Your task to perform on an android device: allow notifications from all sites in the chrome app Image 0: 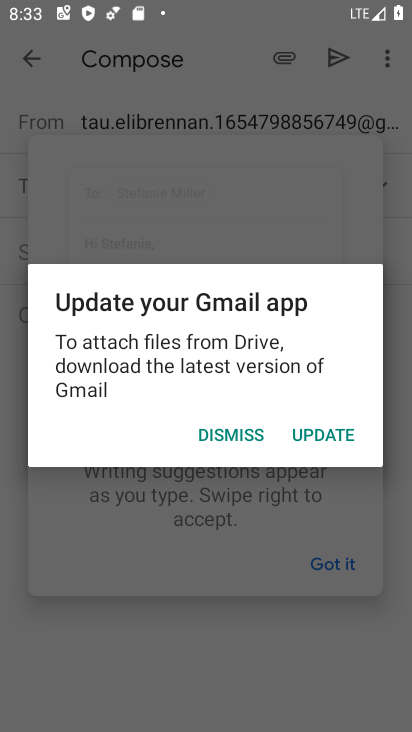
Step 0: press home button
Your task to perform on an android device: allow notifications from all sites in the chrome app Image 1: 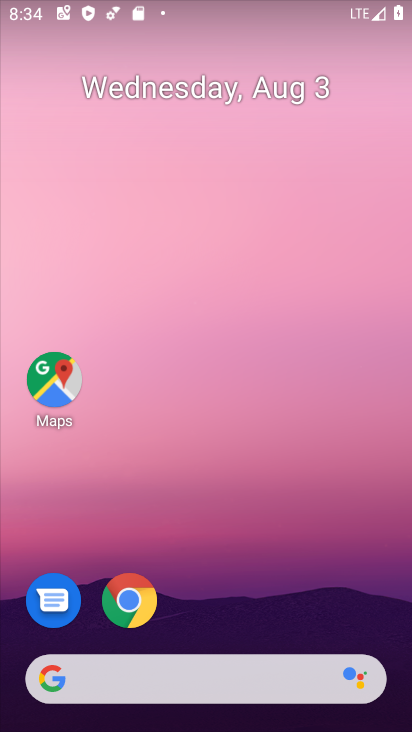
Step 1: drag from (212, 622) to (178, 30)
Your task to perform on an android device: allow notifications from all sites in the chrome app Image 2: 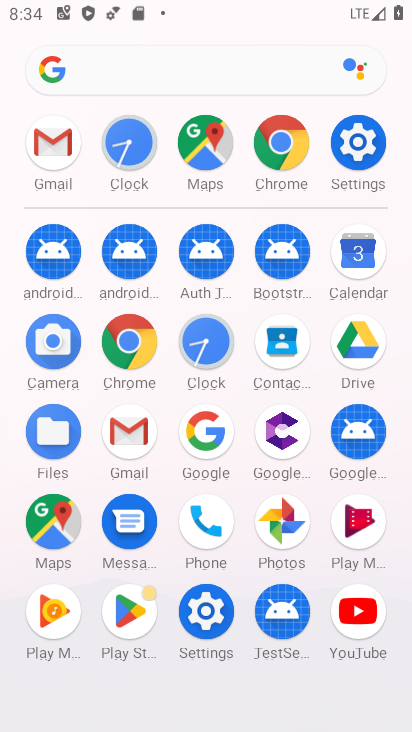
Step 2: click (117, 357)
Your task to perform on an android device: allow notifications from all sites in the chrome app Image 3: 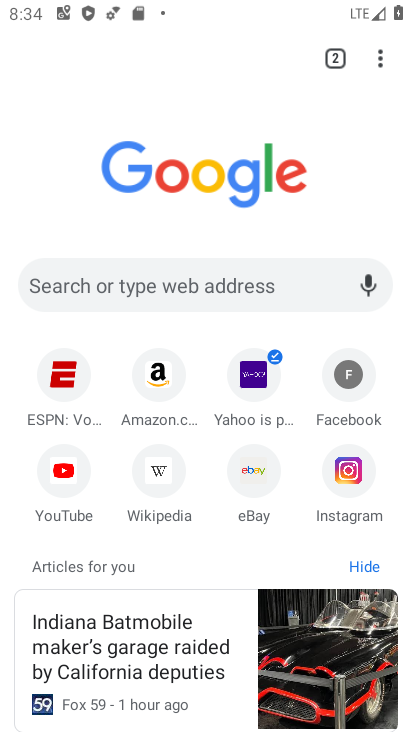
Step 3: click (374, 59)
Your task to perform on an android device: allow notifications from all sites in the chrome app Image 4: 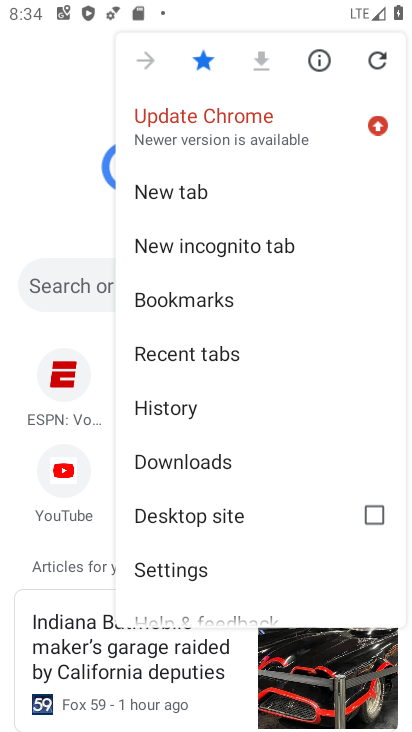
Step 4: click (188, 571)
Your task to perform on an android device: allow notifications from all sites in the chrome app Image 5: 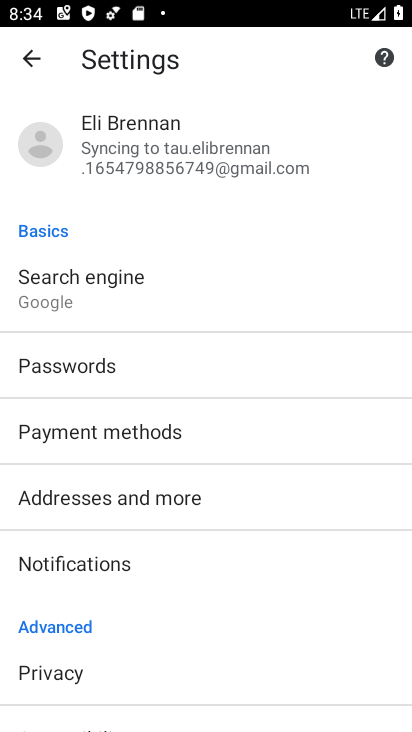
Step 5: click (108, 558)
Your task to perform on an android device: allow notifications from all sites in the chrome app Image 6: 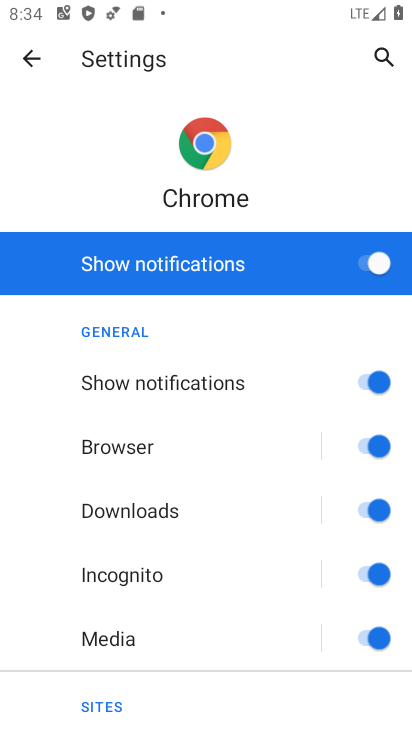
Step 6: task complete